Your task to perform on an android device: Open Maps and search for coffee Image 0: 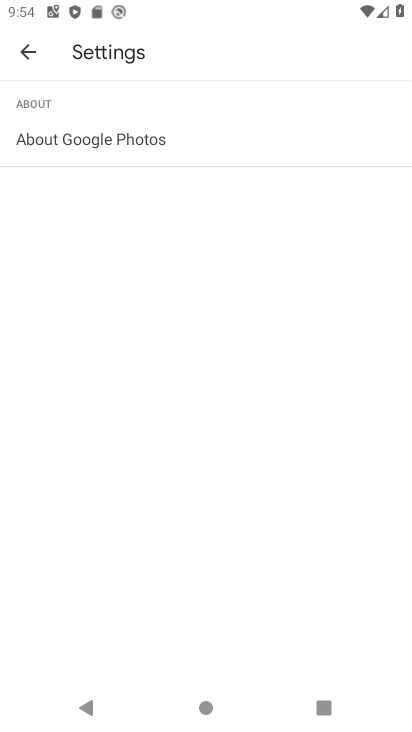
Step 0: press home button
Your task to perform on an android device: Open Maps and search for coffee Image 1: 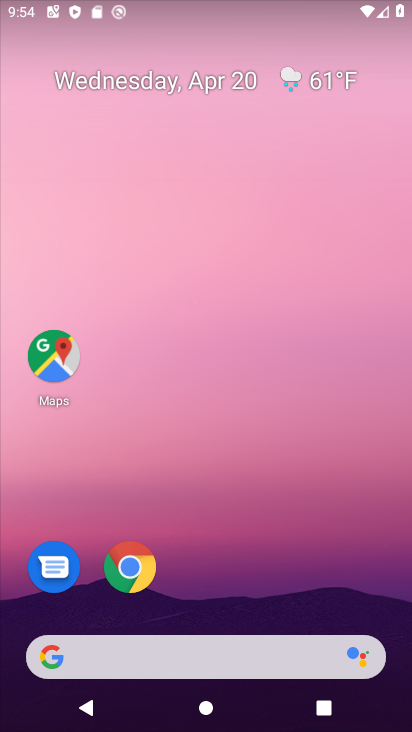
Step 1: click (58, 364)
Your task to perform on an android device: Open Maps and search for coffee Image 2: 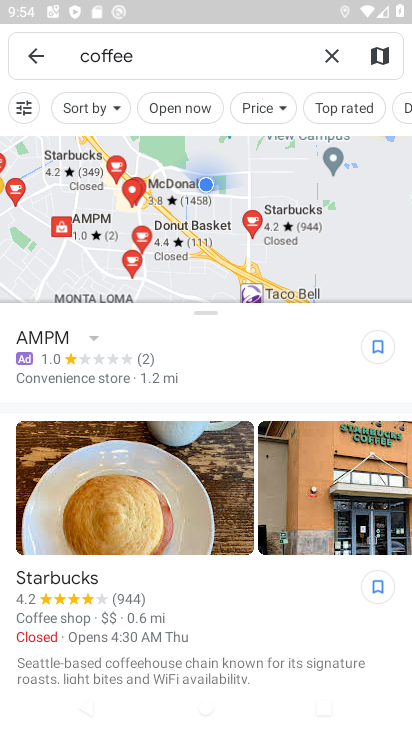
Step 2: task complete